Your task to perform on an android device: read, delete, or share a saved page in the chrome app Image 0: 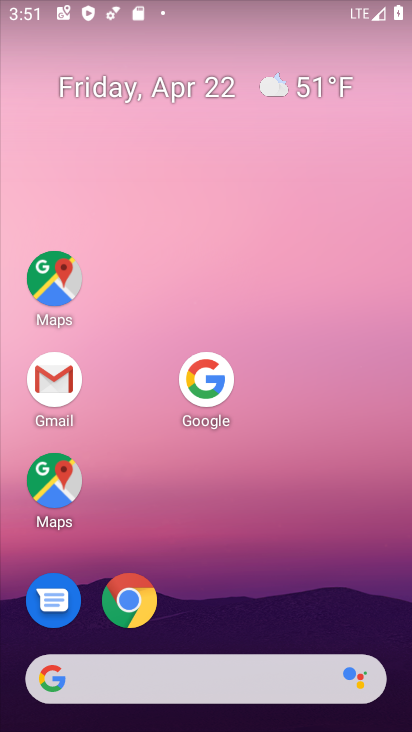
Step 0: drag from (346, 647) to (179, 215)
Your task to perform on an android device: read, delete, or share a saved page in the chrome app Image 1: 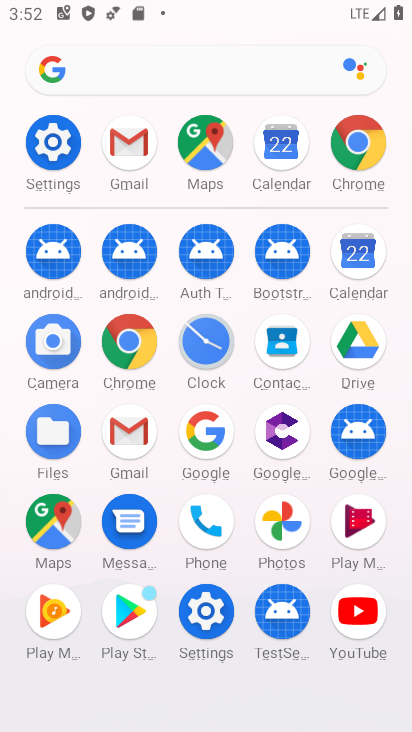
Step 1: click (362, 147)
Your task to perform on an android device: read, delete, or share a saved page in the chrome app Image 2: 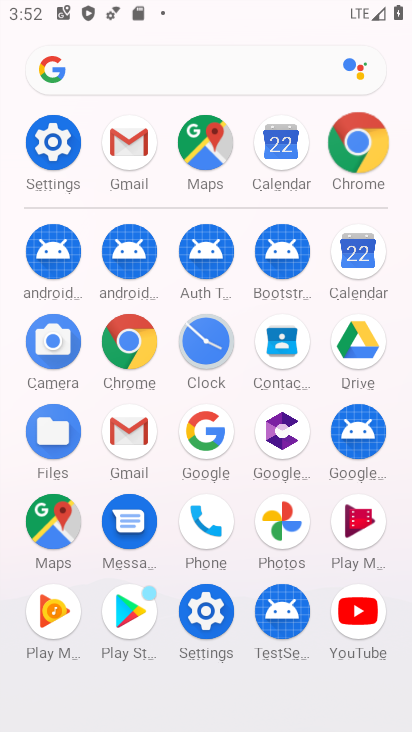
Step 2: click (361, 148)
Your task to perform on an android device: read, delete, or share a saved page in the chrome app Image 3: 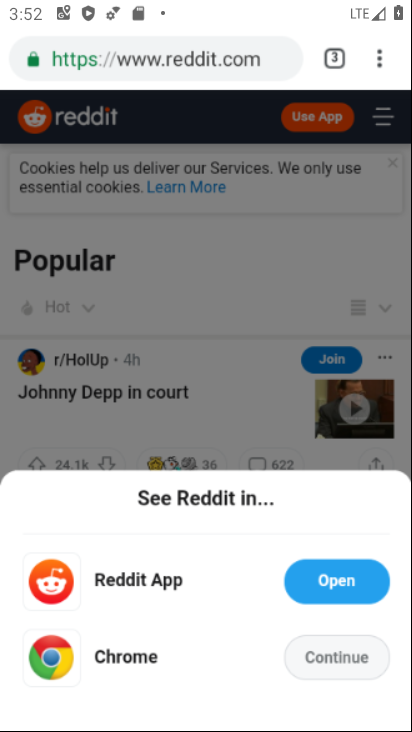
Step 3: click (358, 150)
Your task to perform on an android device: read, delete, or share a saved page in the chrome app Image 4: 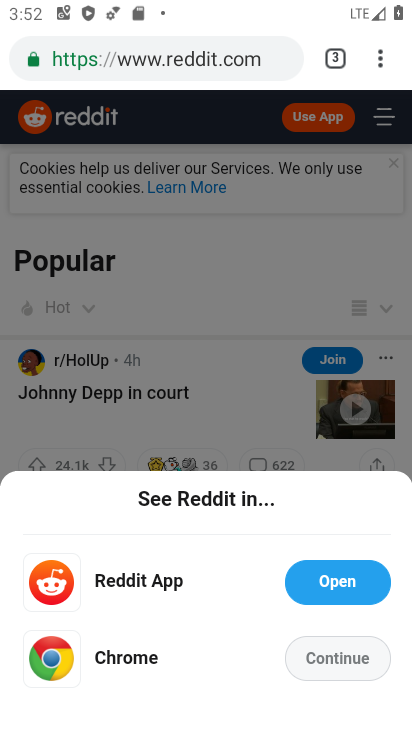
Step 4: press home button
Your task to perform on an android device: read, delete, or share a saved page in the chrome app Image 5: 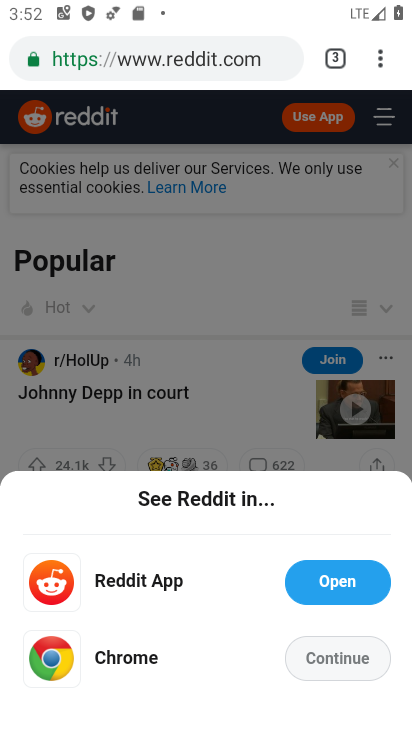
Step 5: press home button
Your task to perform on an android device: read, delete, or share a saved page in the chrome app Image 6: 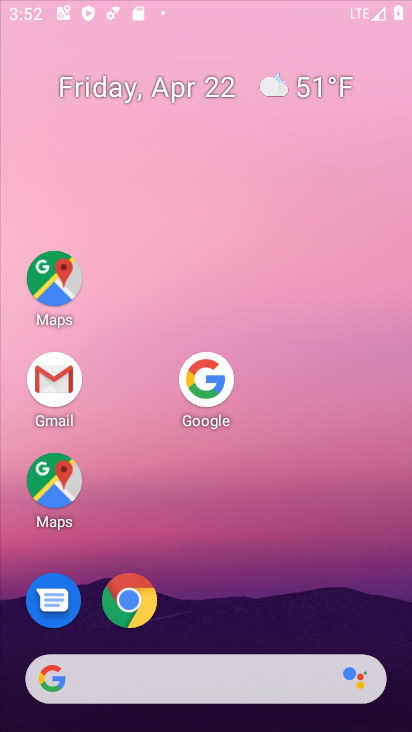
Step 6: press home button
Your task to perform on an android device: read, delete, or share a saved page in the chrome app Image 7: 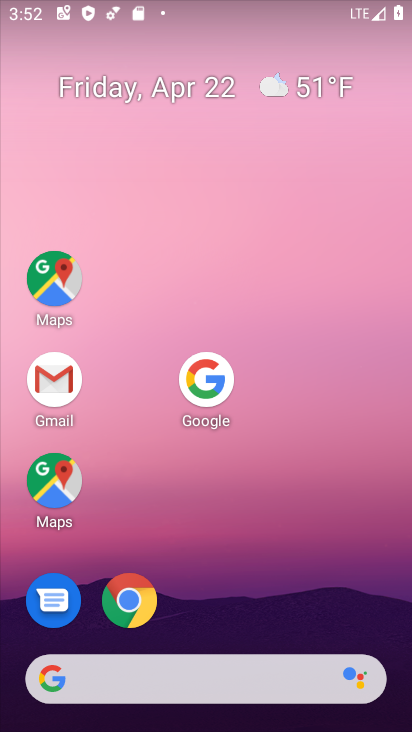
Step 7: drag from (322, 582) to (131, 47)
Your task to perform on an android device: read, delete, or share a saved page in the chrome app Image 8: 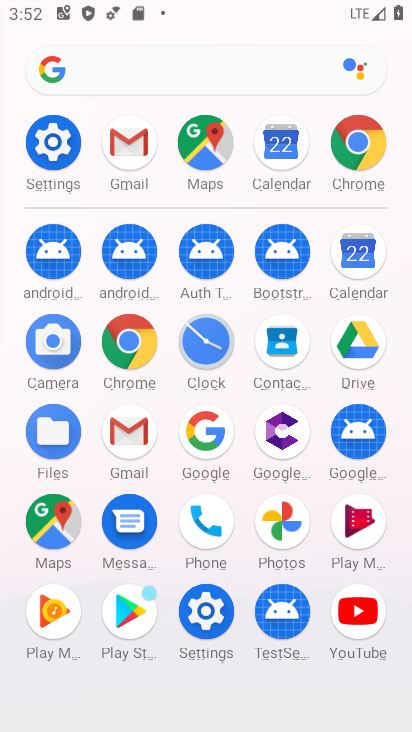
Step 8: click (129, 342)
Your task to perform on an android device: read, delete, or share a saved page in the chrome app Image 9: 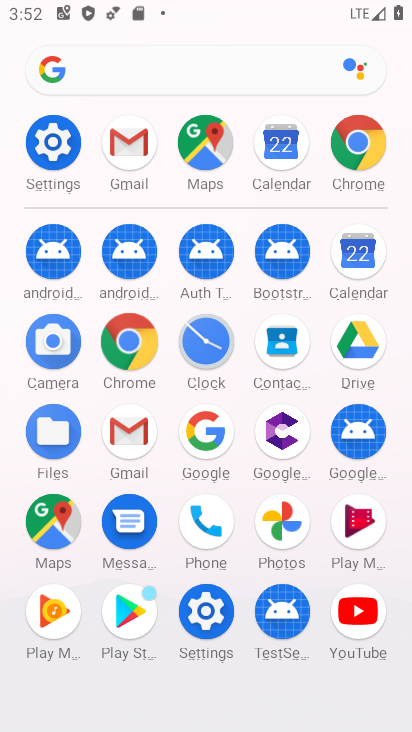
Step 9: click (129, 342)
Your task to perform on an android device: read, delete, or share a saved page in the chrome app Image 10: 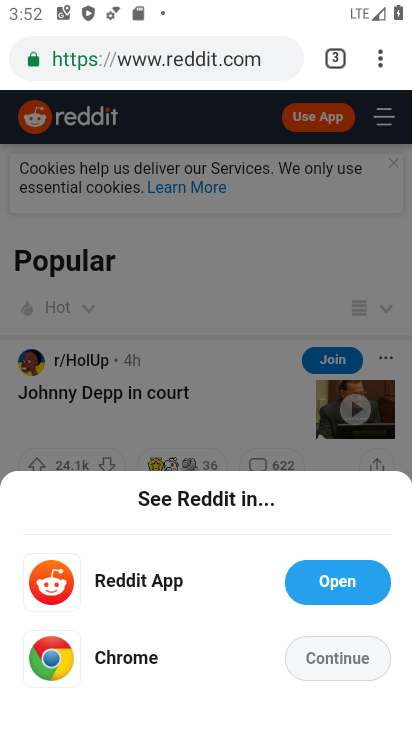
Step 10: press home button
Your task to perform on an android device: read, delete, or share a saved page in the chrome app Image 11: 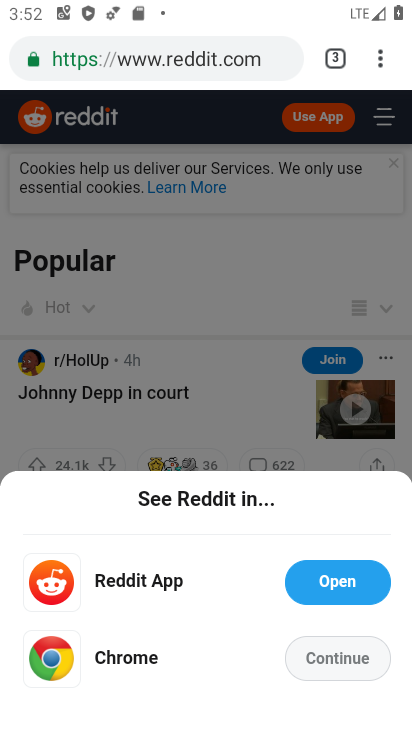
Step 11: press home button
Your task to perform on an android device: read, delete, or share a saved page in the chrome app Image 12: 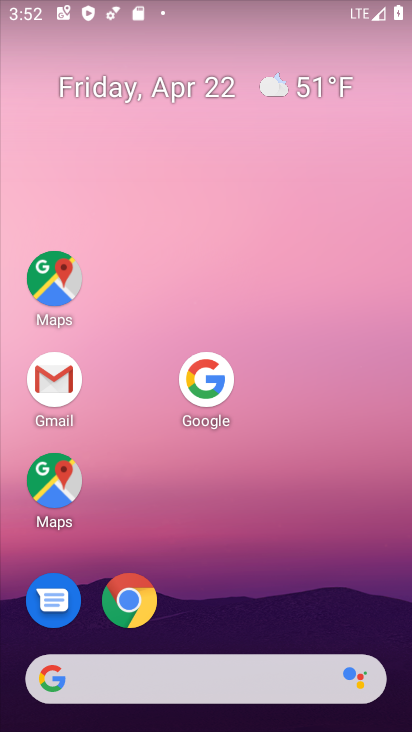
Step 12: drag from (268, 522) to (113, 177)
Your task to perform on an android device: read, delete, or share a saved page in the chrome app Image 13: 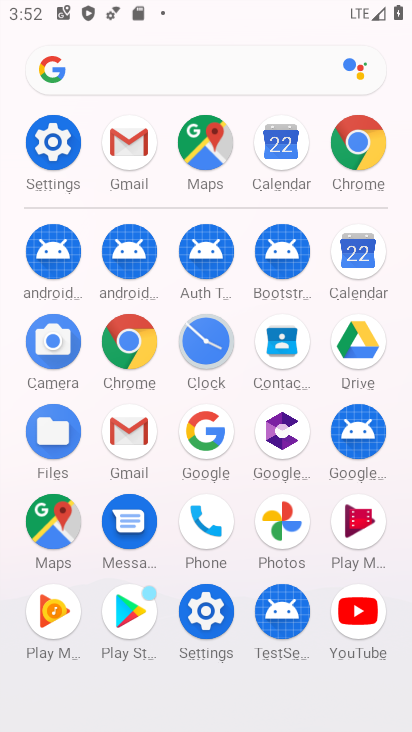
Step 13: click (353, 137)
Your task to perform on an android device: read, delete, or share a saved page in the chrome app Image 14: 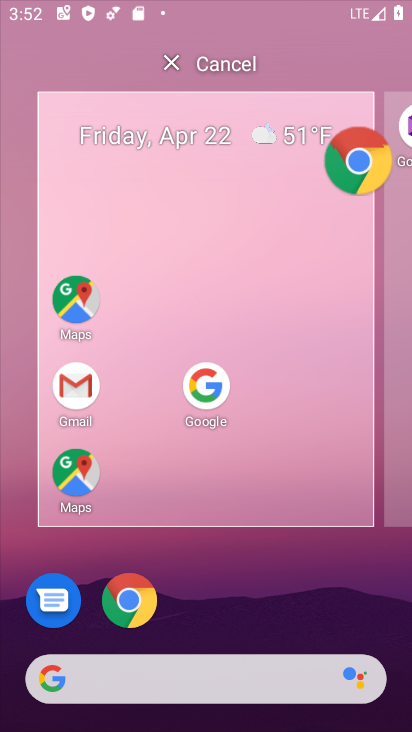
Step 14: click (355, 146)
Your task to perform on an android device: read, delete, or share a saved page in the chrome app Image 15: 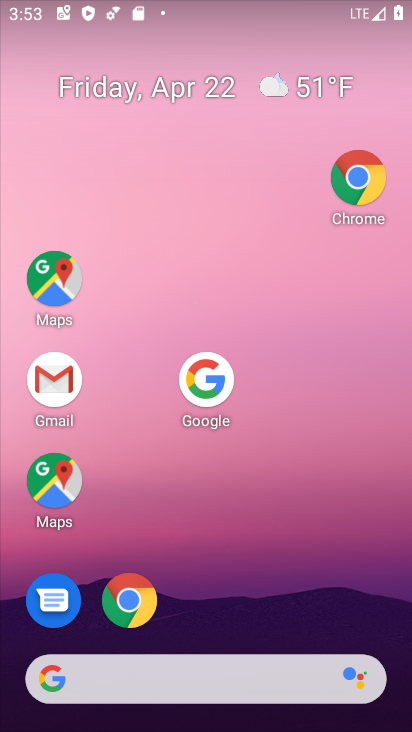
Step 15: click (346, 150)
Your task to perform on an android device: read, delete, or share a saved page in the chrome app Image 16: 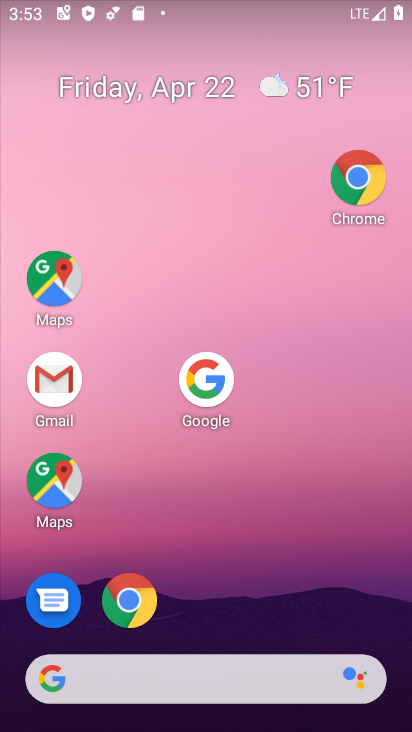
Step 16: click (354, 150)
Your task to perform on an android device: read, delete, or share a saved page in the chrome app Image 17: 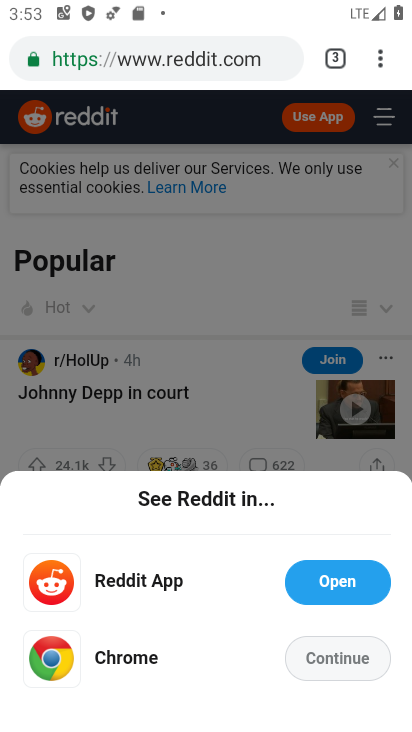
Step 17: drag from (378, 35) to (236, 272)
Your task to perform on an android device: read, delete, or share a saved page in the chrome app Image 18: 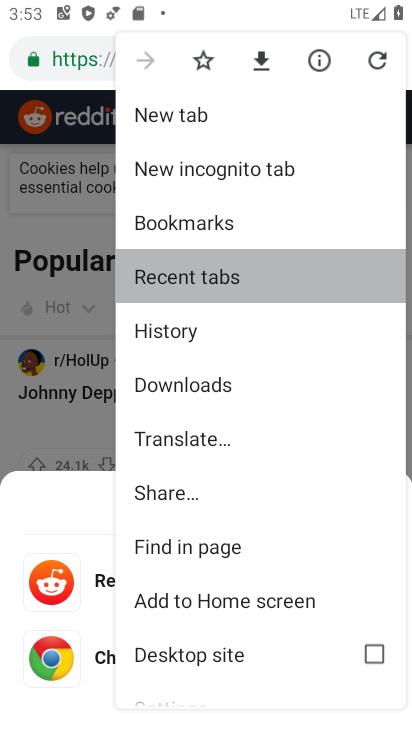
Step 18: click (236, 273)
Your task to perform on an android device: read, delete, or share a saved page in the chrome app Image 19: 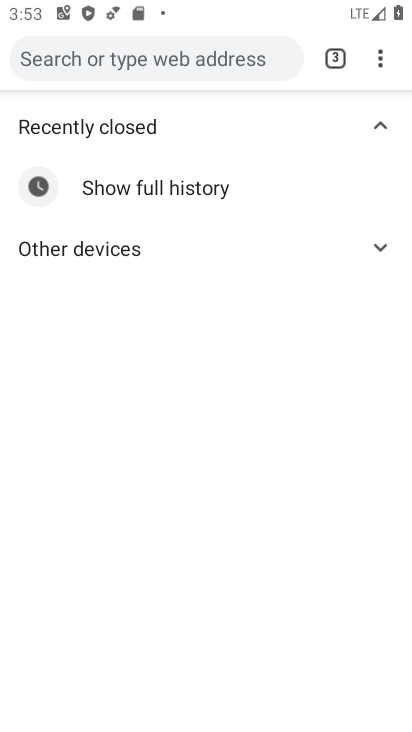
Step 19: click (373, 53)
Your task to perform on an android device: read, delete, or share a saved page in the chrome app Image 20: 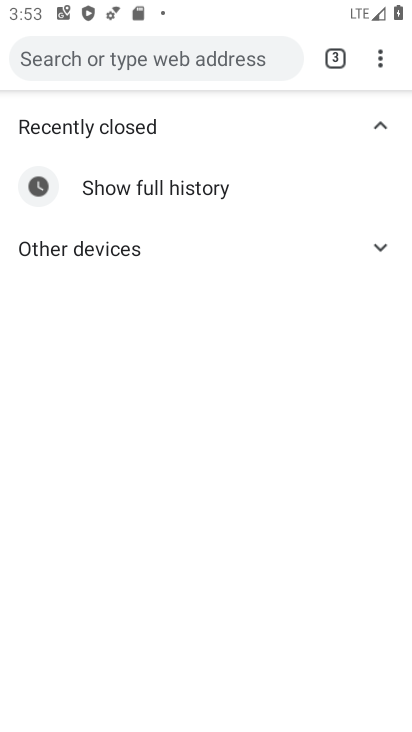
Step 20: drag from (378, 66) to (183, 388)
Your task to perform on an android device: read, delete, or share a saved page in the chrome app Image 21: 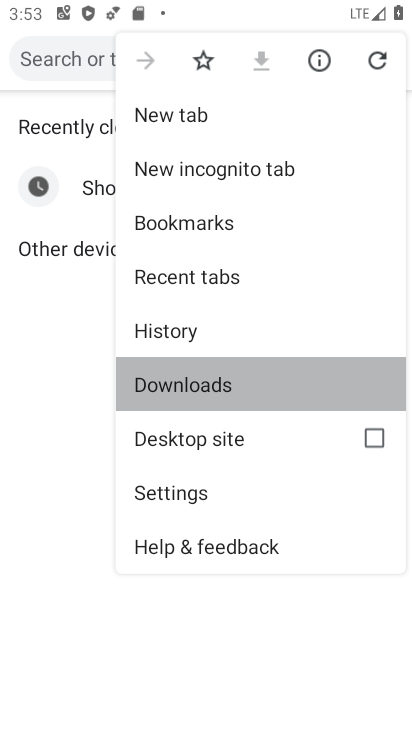
Step 21: click (173, 389)
Your task to perform on an android device: read, delete, or share a saved page in the chrome app Image 22: 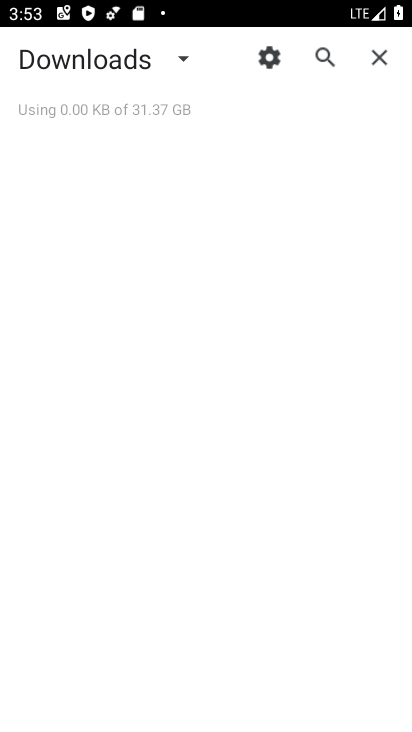
Step 22: click (180, 64)
Your task to perform on an android device: read, delete, or share a saved page in the chrome app Image 23: 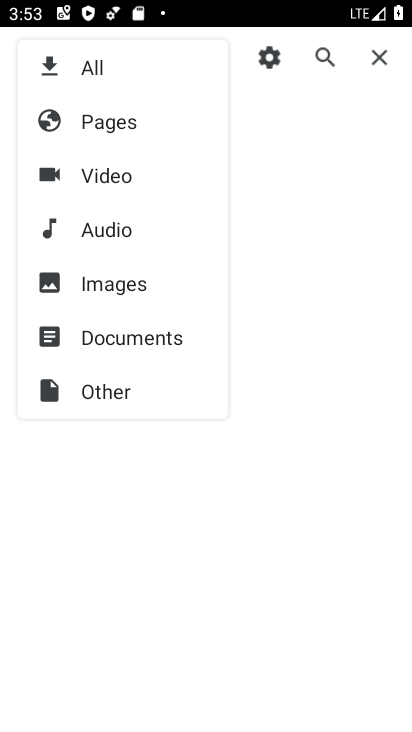
Step 23: click (98, 129)
Your task to perform on an android device: read, delete, or share a saved page in the chrome app Image 24: 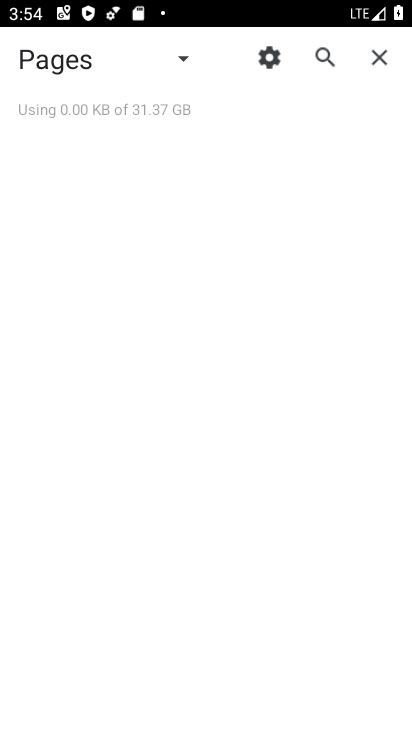
Step 24: task complete